Your task to perform on an android device: turn off airplane mode Image 0: 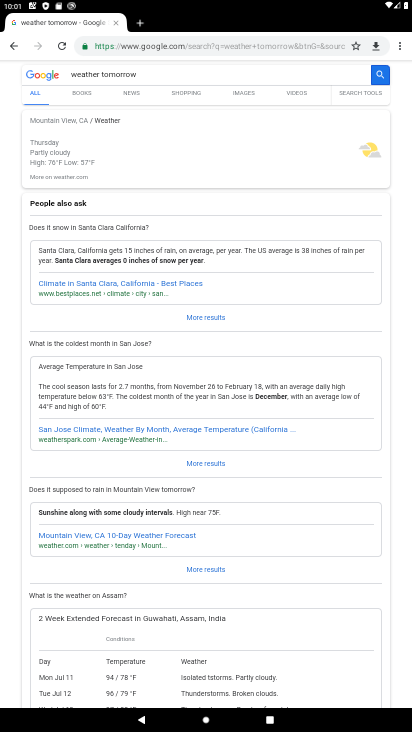
Step 0: press home button
Your task to perform on an android device: turn off airplane mode Image 1: 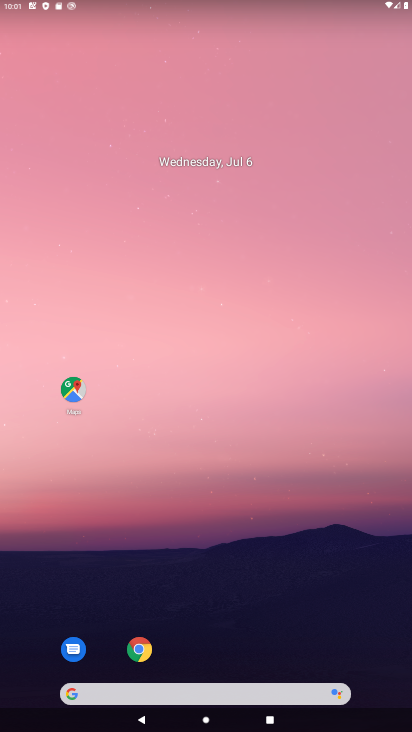
Step 1: drag from (213, 686) to (250, 128)
Your task to perform on an android device: turn off airplane mode Image 2: 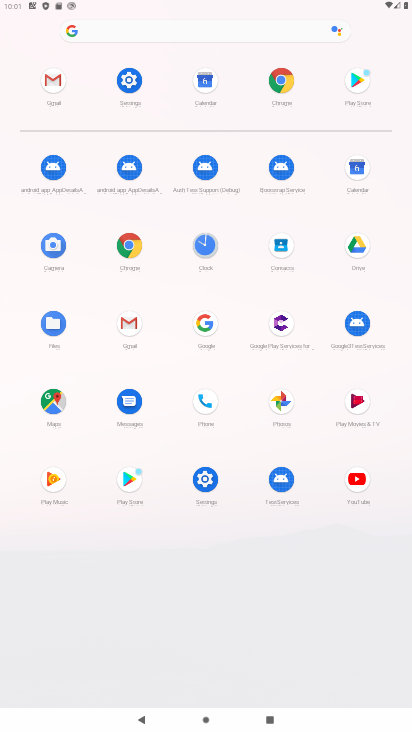
Step 2: click (132, 95)
Your task to perform on an android device: turn off airplane mode Image 3: 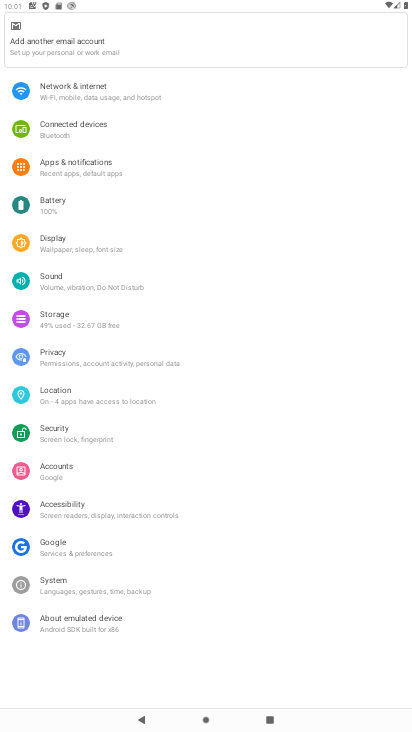
Step 3: click (91, 95)
Your task to perform on an android device: turn off airplane mode Image 4: 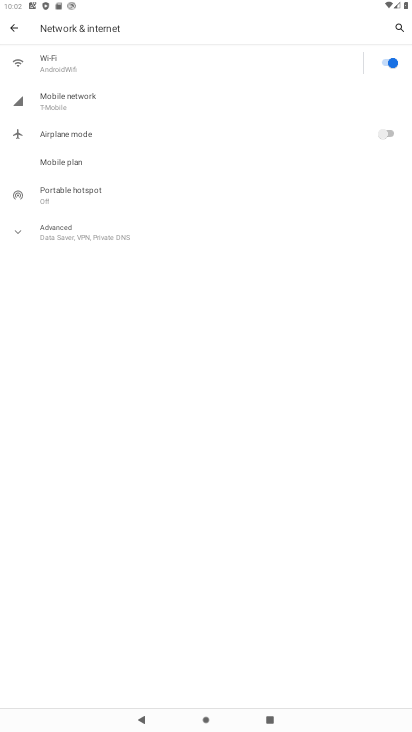
Step 4: task complete